Your task to perform on an android device: Open notification settings Image 0: 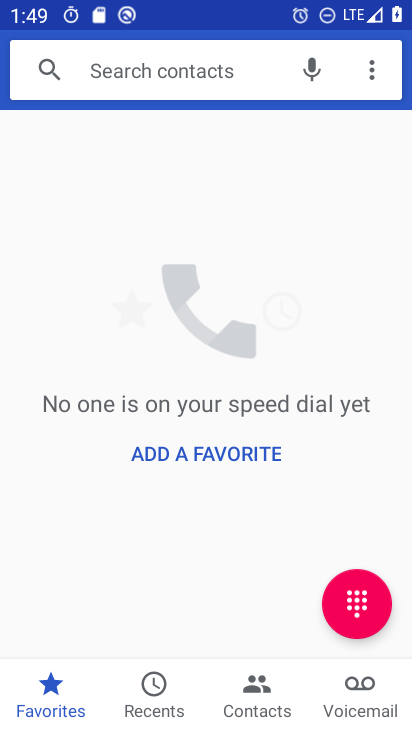
Step 0: press home button
Your task to perform on an android device: Open notification settings Image 1: 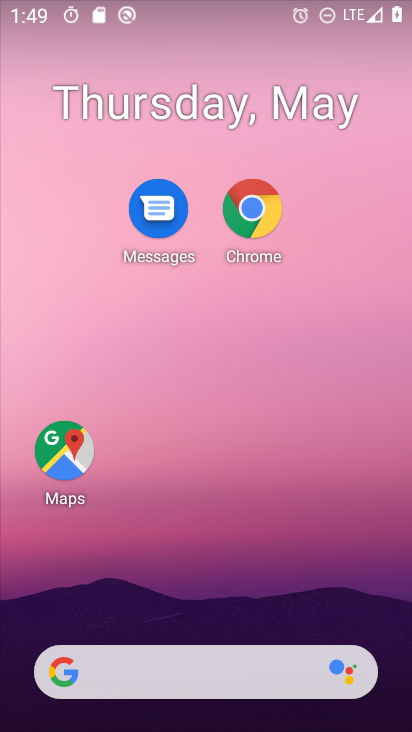
Step 1: drag from (206, 598) to (215, 3)
Your task to perform on an android device: Open notification settings Image 2: 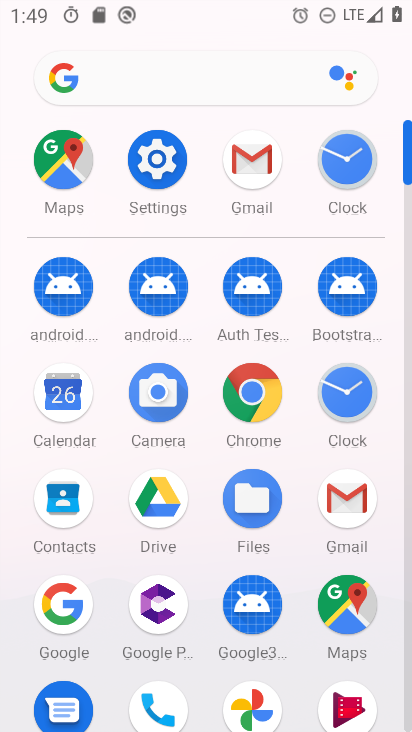
Step 2: click (157, 168)
Your task to perform on an android device: Open notification settings Image 3: 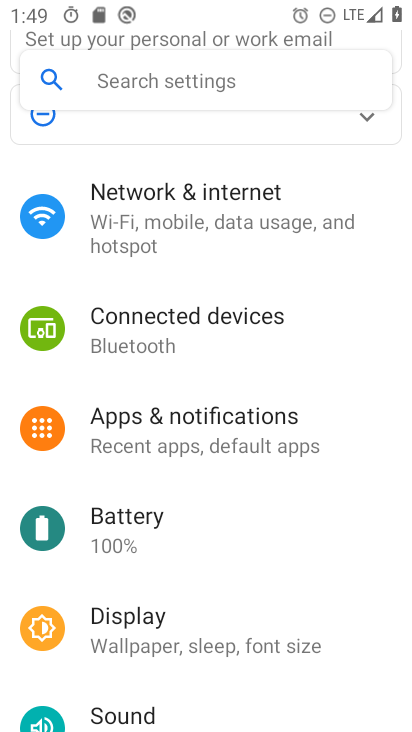
Step 3: drag from (160, 647) to (174, 336)
Your task to perform on an android device: Open notification settings Image 4: 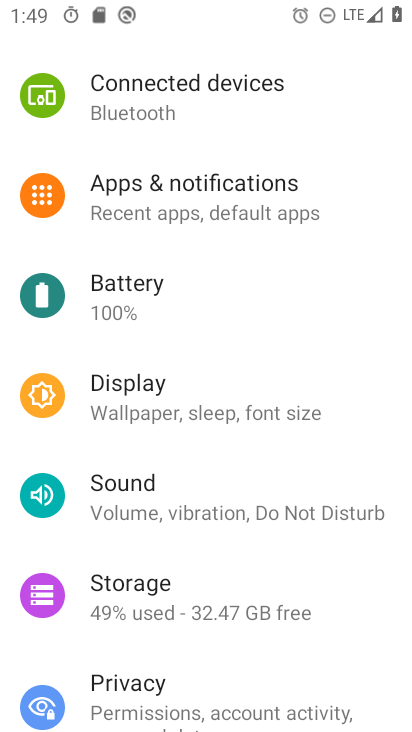
Step 4: click (122, 209)
Your task to perform on an android device: Open notification settings Image 5: 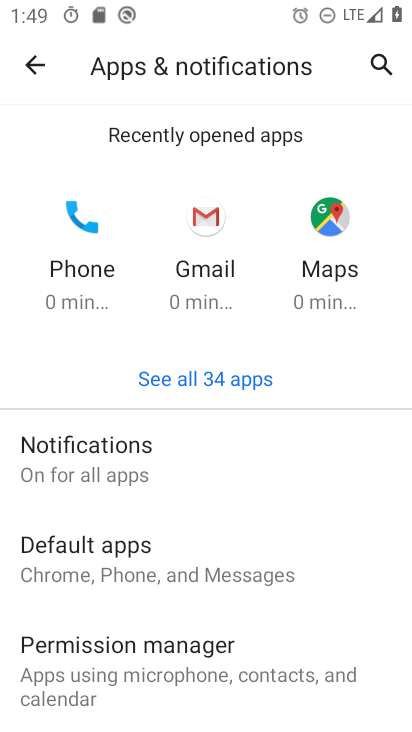
Step 5: click (92, 466)
Your task to perform on an android device: Open notification settings Image 6: 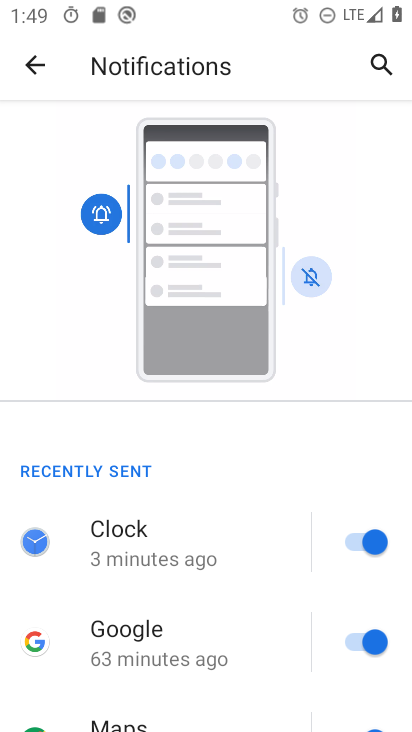
Step 6: task complete